Your task to perform on an android device: Turn on the flashlight Image 0: 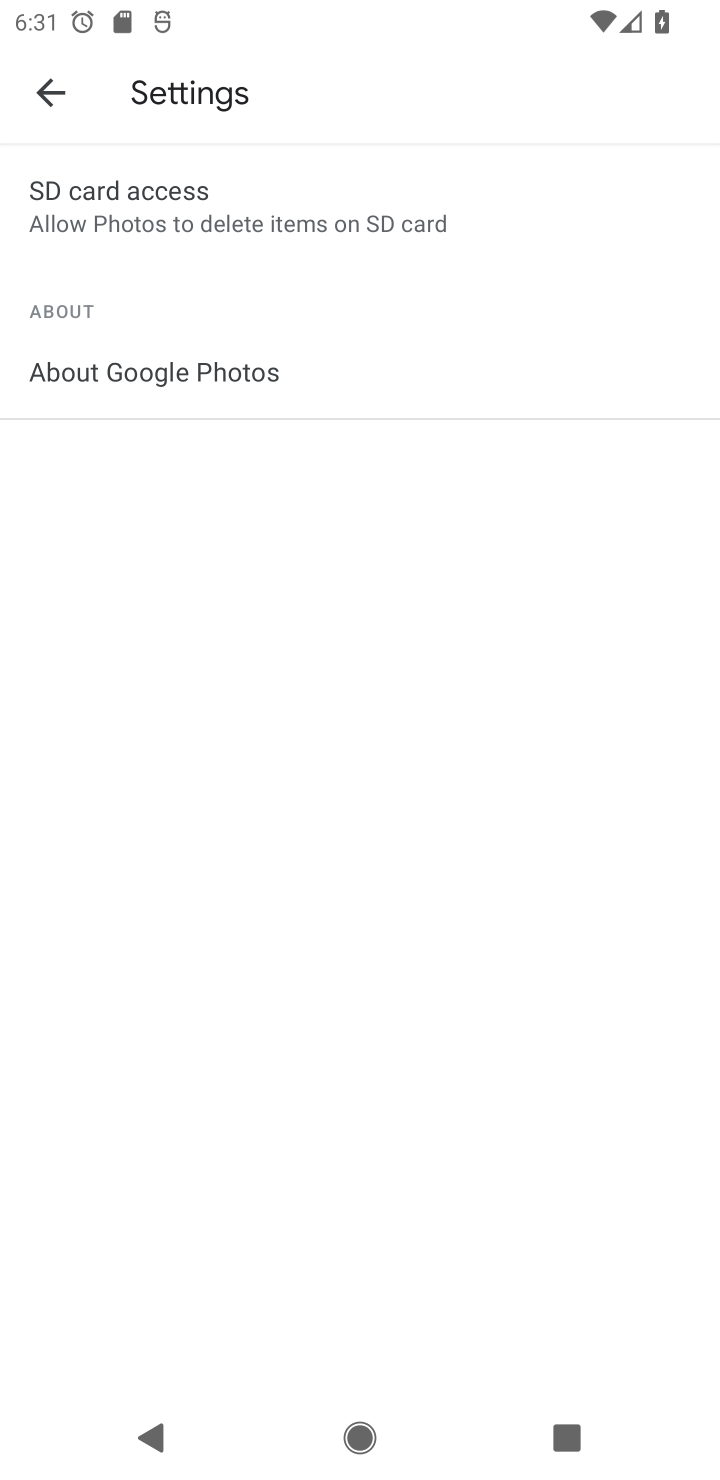
Step 0: press home button
Your task to perform on an android device: Turn on the flashlight Image 1: 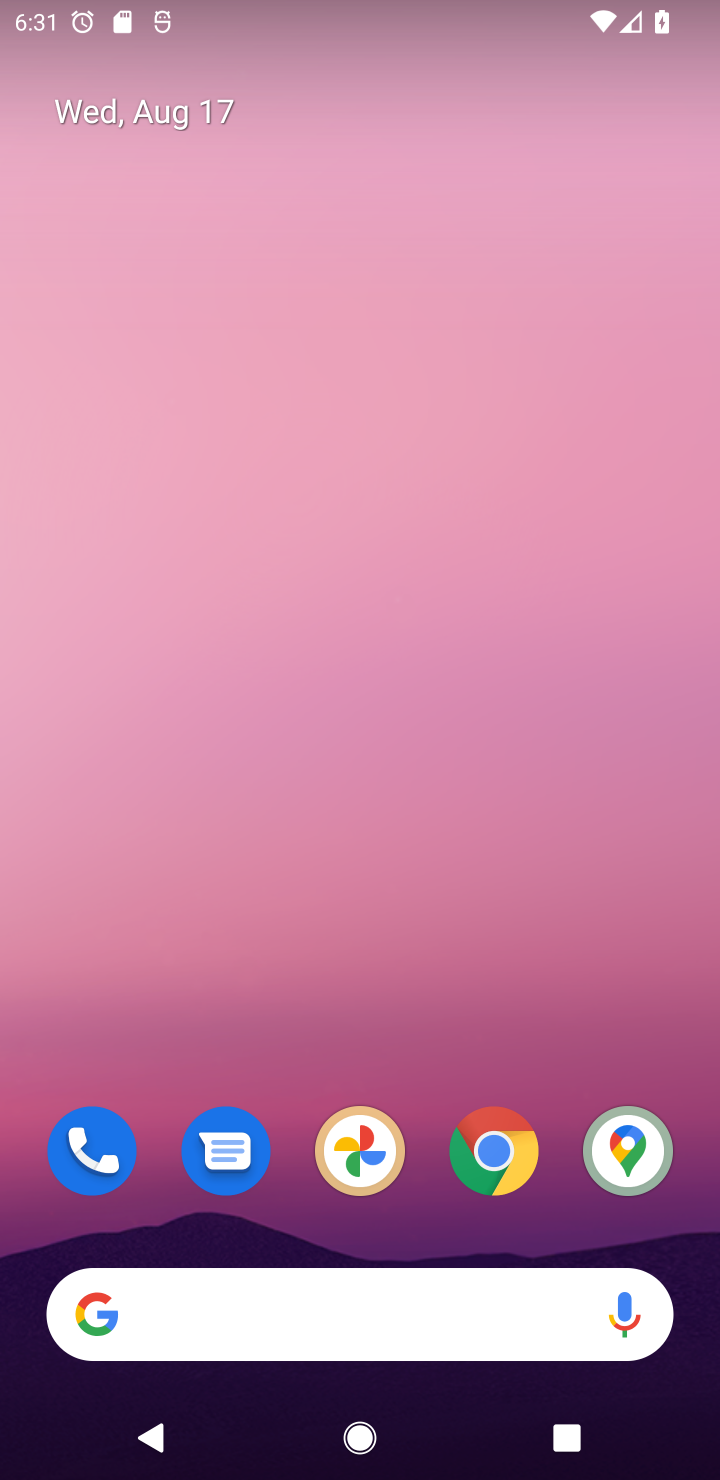
Step 1: drag from (397, 1231) to (420, 200)
Your task to perform on an android device: Turn on the flashlight Image 2: 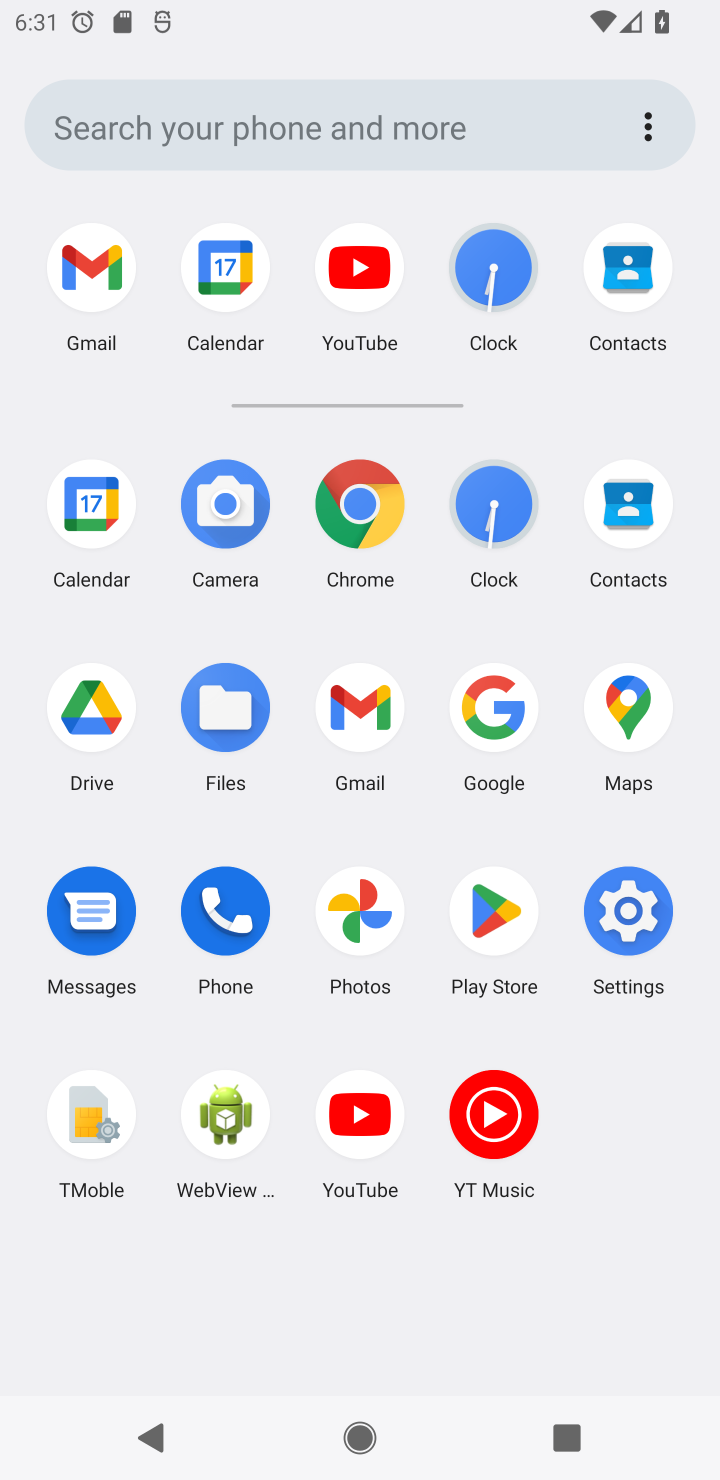
Step 2: click (621, 912)
Your task to perform on an android device: Turn on the flashlight Image 3: 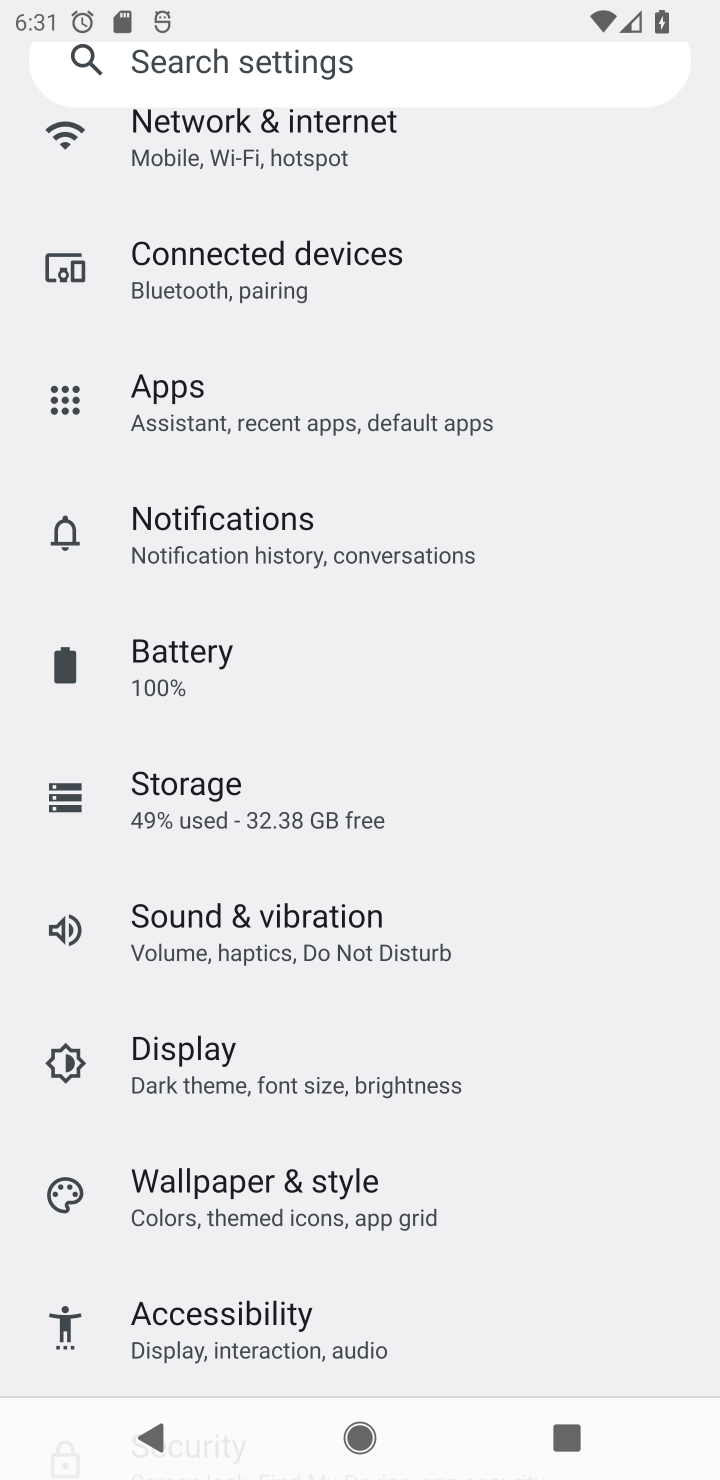
Step 3: click (214, 186)
Your task to perform on an android device: Turn on the flashlight Image 4: 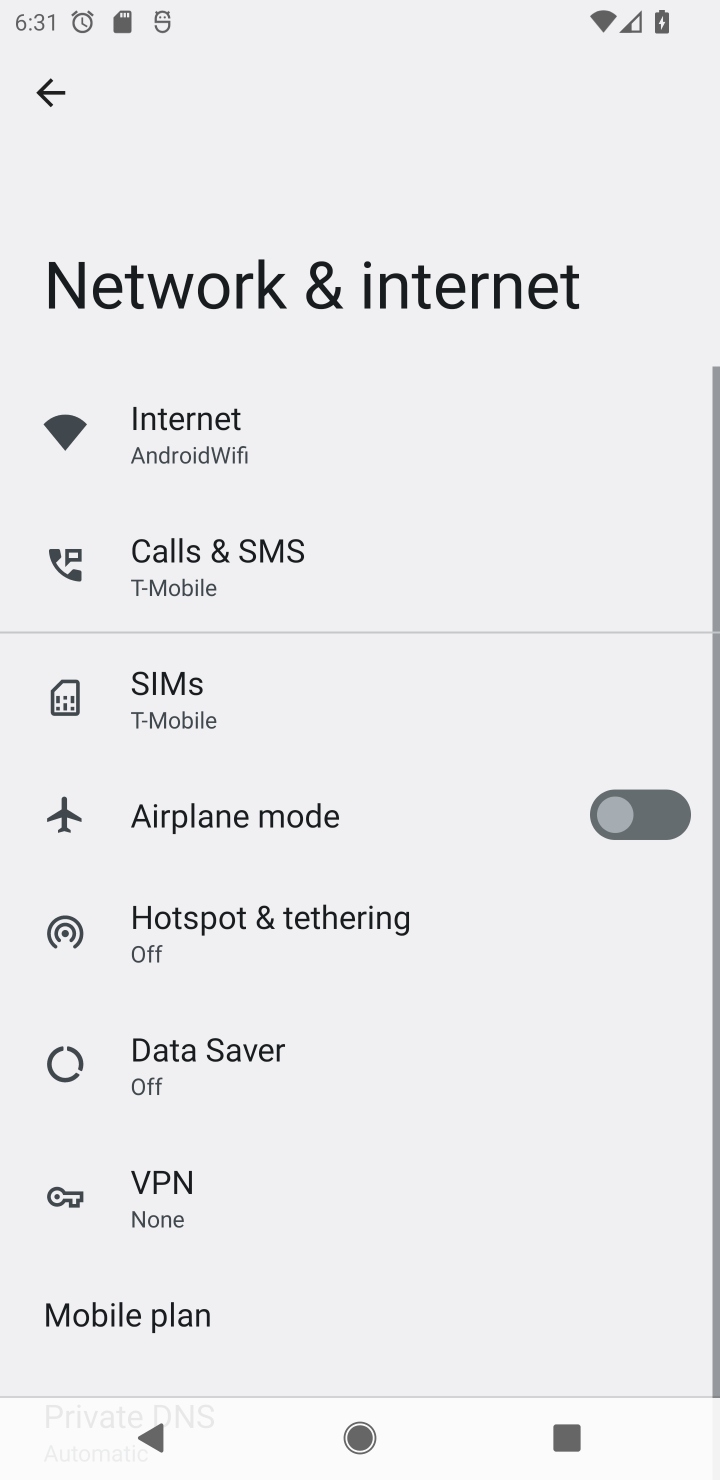
Step 4: task complete